Your task to perform on an android device: show emergency info Image 0: 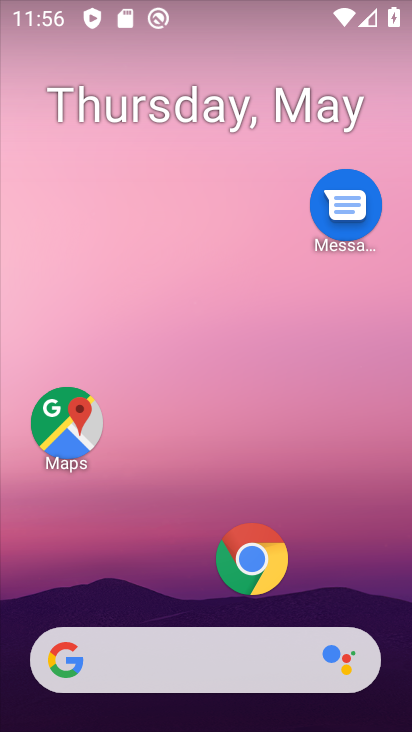
Step 0: drag from (202, 640) to (257, 152)
Your task to perform on an android device: show emergency info Image 1: 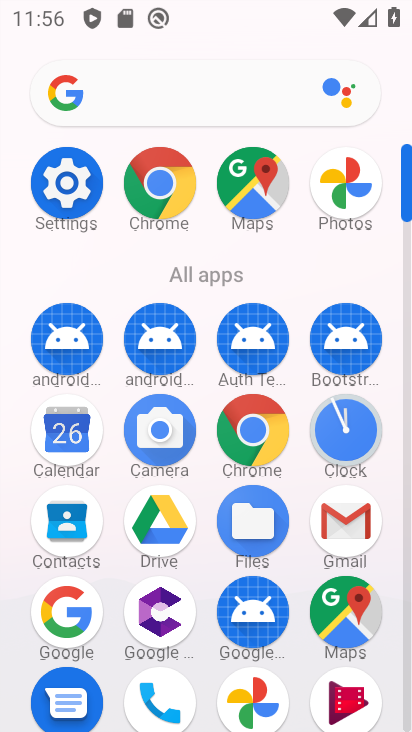
Step 1: click (67, 203)
Your task to perform on an android device: show emergency info Image 2: 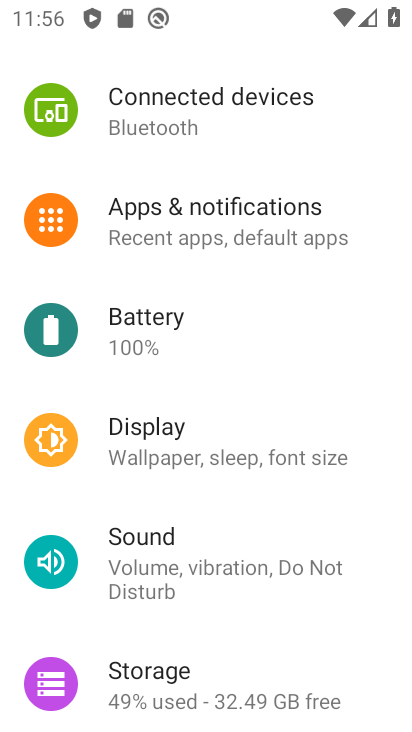
Step 2: drag from (200, 518) to (241, 282)
Your task to perform on an android device: show emergency info Image 3: 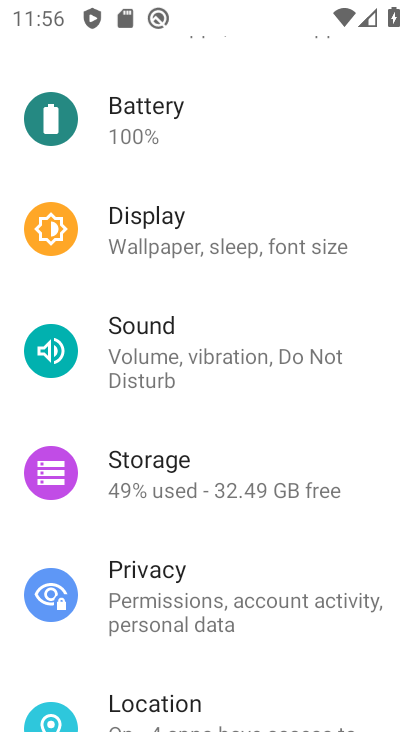
Step 3: drag from (218, 530) to (267, 204)
Your task to perform on an android device: show emergency info Image 4: 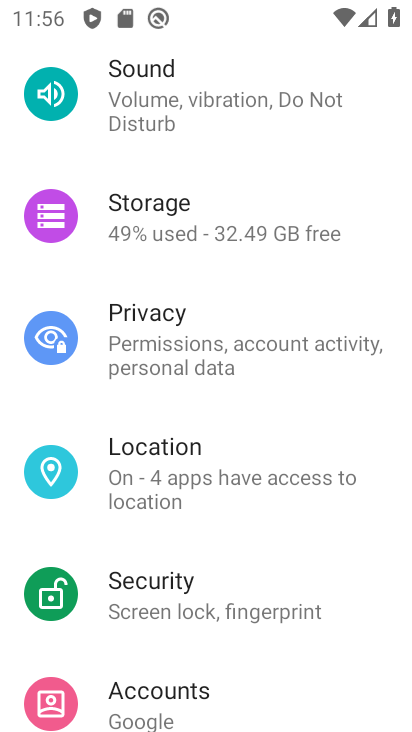
Step 4: drag from (161, 549) to (219, 257)
Your task to perform on an android device: show emergency info Image 5: 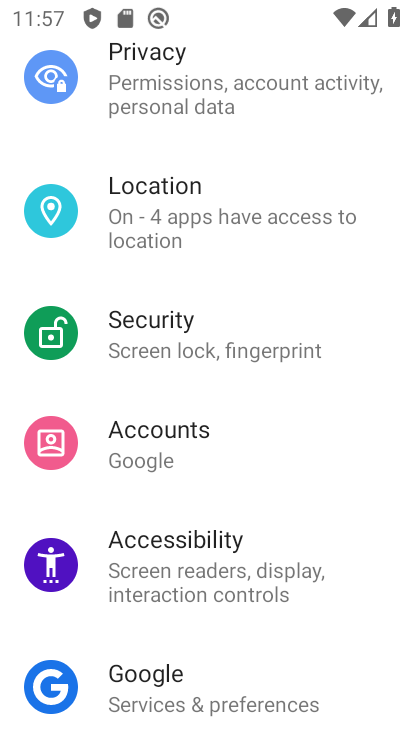
Step 5: drag from (205, 576) to (259, 274)
Your task to perform on an android device: show emergency info Image 6: 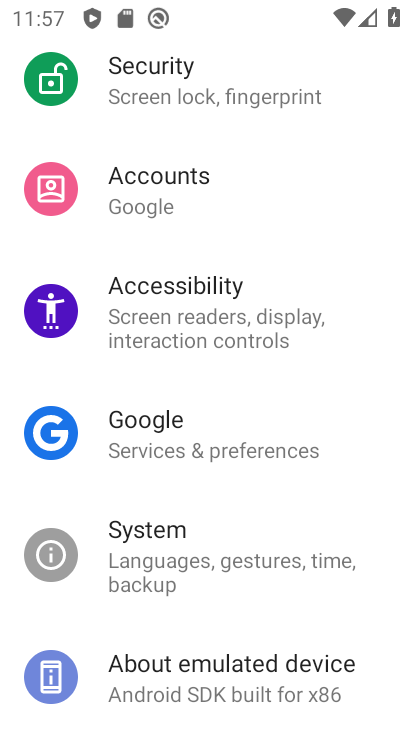
Step 6: drag from (165, 669) to (198, 324)
Your task to perform on an android device: show emergency info Image 7: 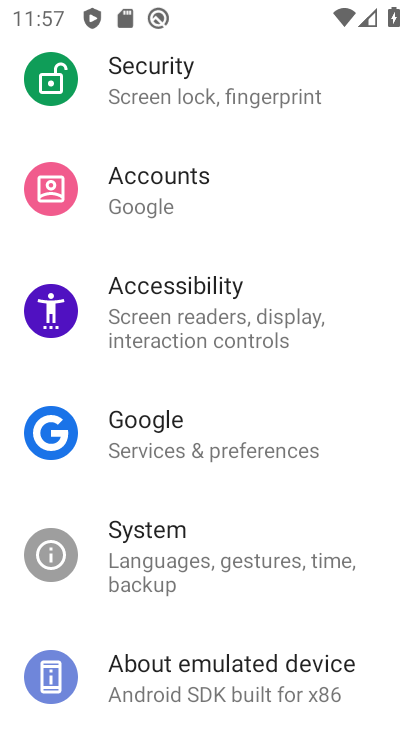
Step 7: click (213, 674)
Your task to perform on an android device: show emergency info Image 8: 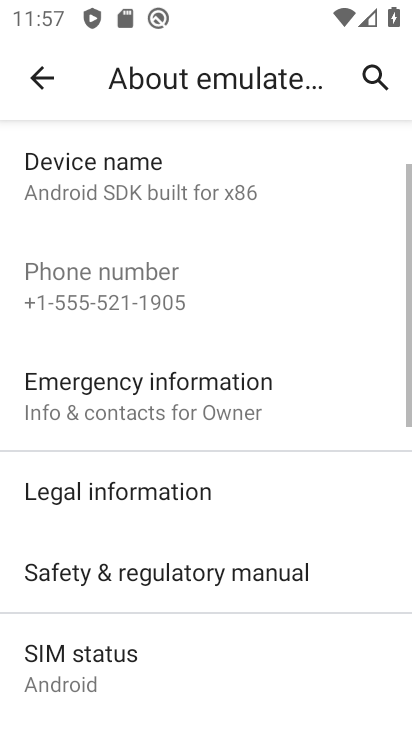
Step 8: click (149, 406)
Your task to perform on an android device: show emergency info Image 9: 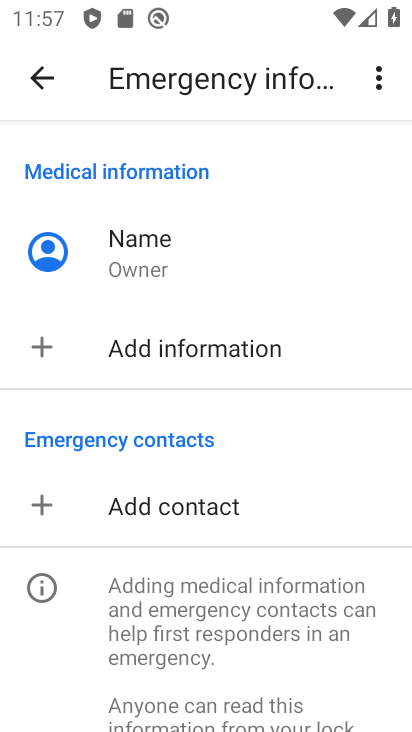
Step 9: task complete